Your task to perform on an android device: Open Youtube and go to "Your channel" Image 0: 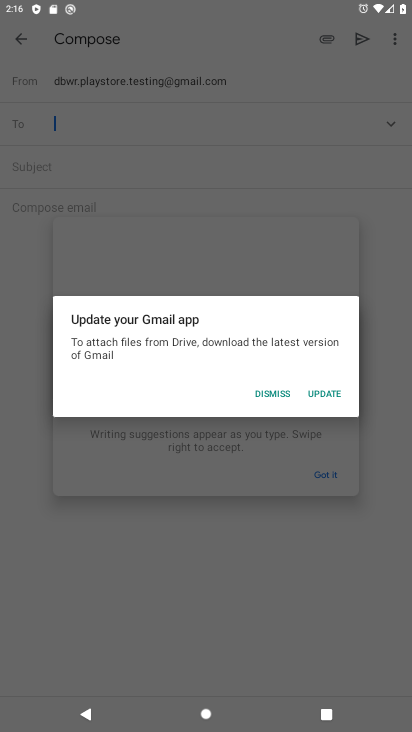
Step 0: press home button
Your task to perform on an android device: Open Youtube and go to "Your channel" Image 1: 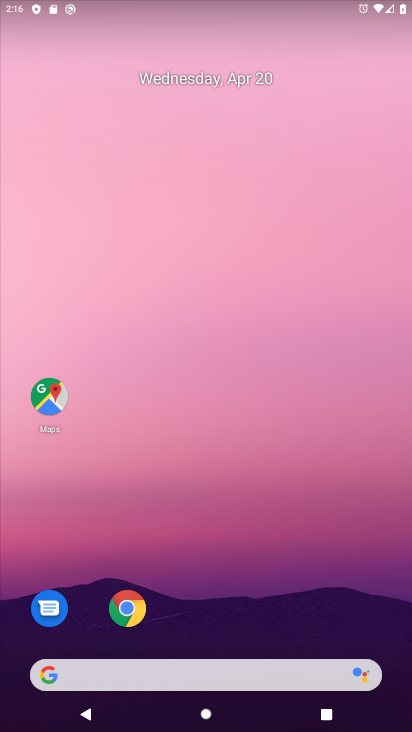
Step 1: drag from (271, 623) to (343, 178)
Your task to perform on an android device: Open Youtube and go to "Your channel" Image 2: 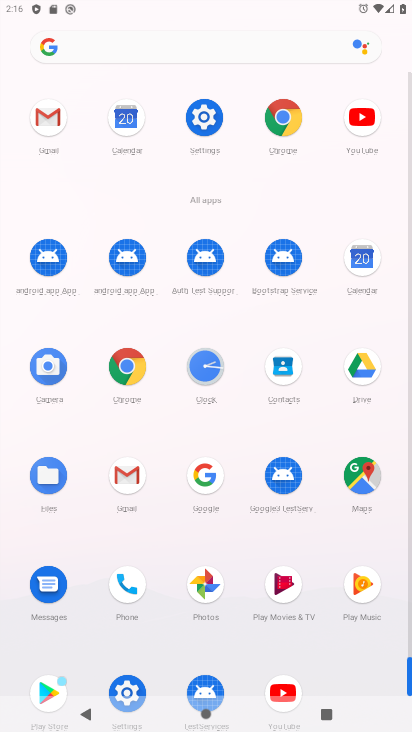
Step 2: drag from (278, 547) to (315, 421)
Your task to perform on an android device: Open Youtube and go to "Your channel" Image 3: 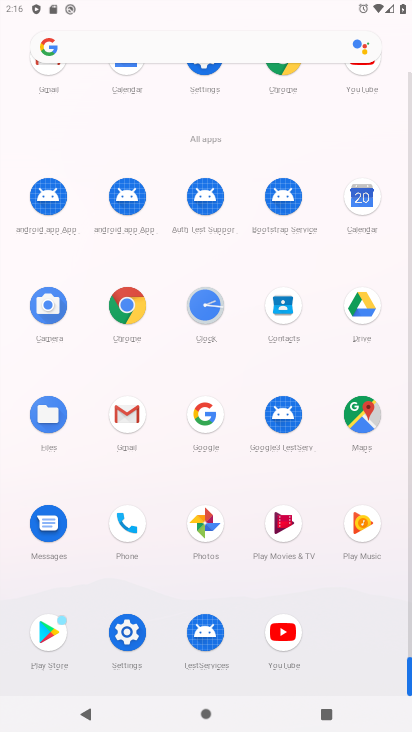
Step 3: click (283, 640)
Your task to perform on an android device: Open Youtube and go to "Your channel" Image 4: 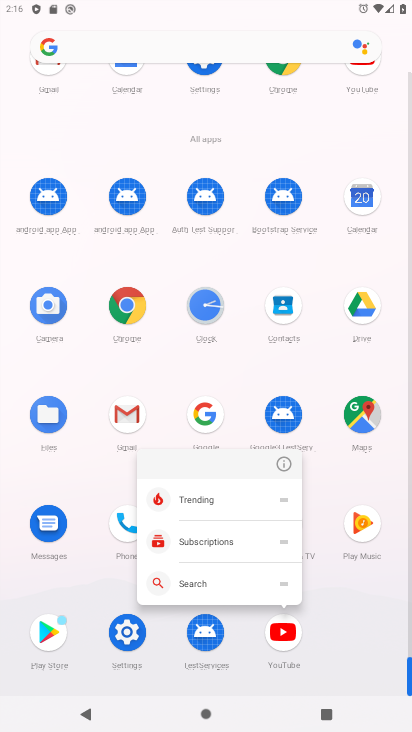
Step 4: click (283, 640)
Your task to perform on an android device: Open Youtube and go to "Your channel" Image 5: 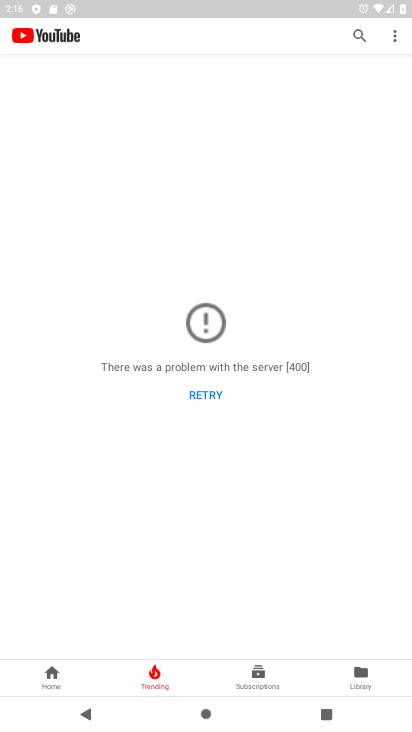
Step 5: click (356, 677)
Your task to perform on an android device: Open Youtube and go to "Your channel" Image 6: 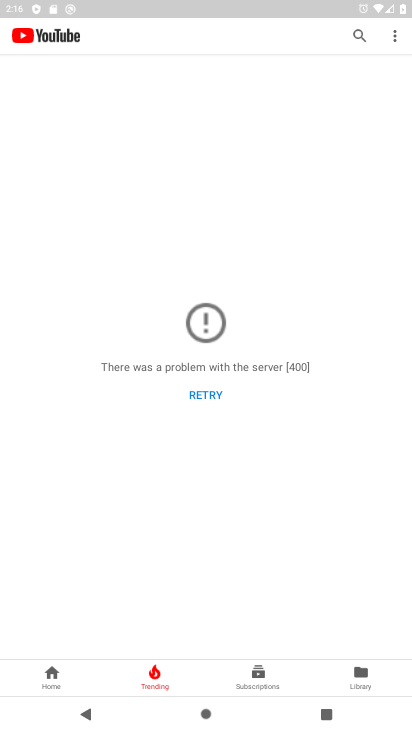
Step 6: click (357, 673)
Your task to perform on an android device: Open Youtube and go to "Your channel" Image 7: 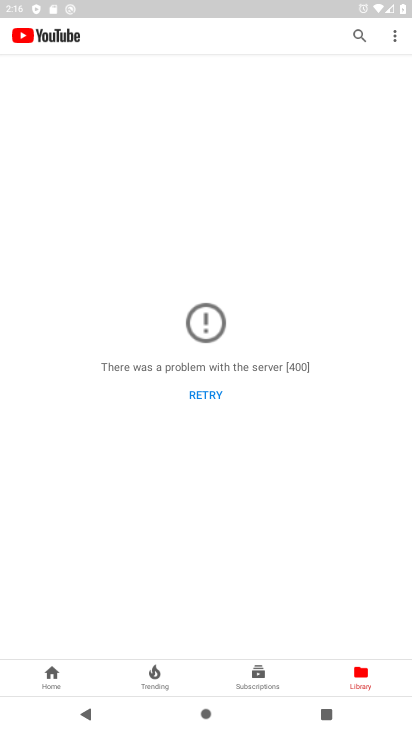
Step 7: click (392, 35)
Your task to perform on an android device: Open Youtube and go to "Your channel" Image 8: 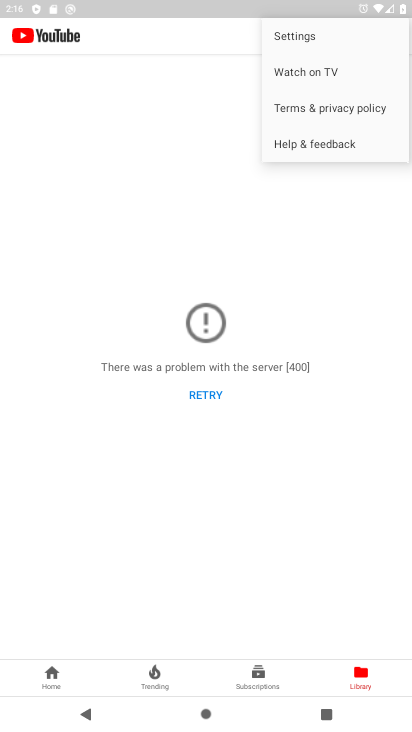
Step 8: click (194, 393)
Your task to perform on an android device: Open Youtube and go to "Your channel" Image 9: 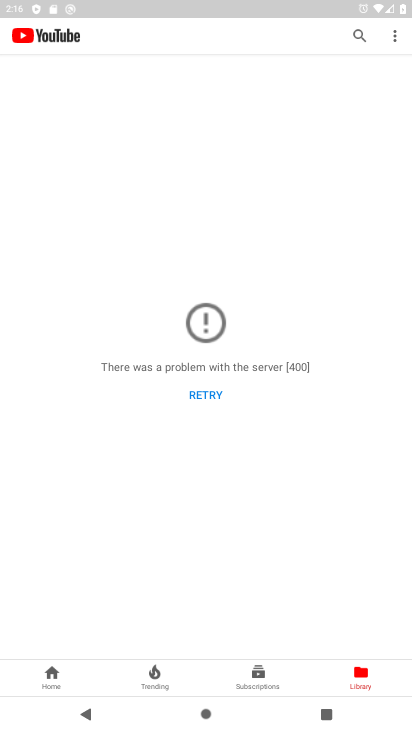
Step 9: click (194, 392)
Your task to perform on an android device: Open Youtube and go to "Your channel" Image 10: 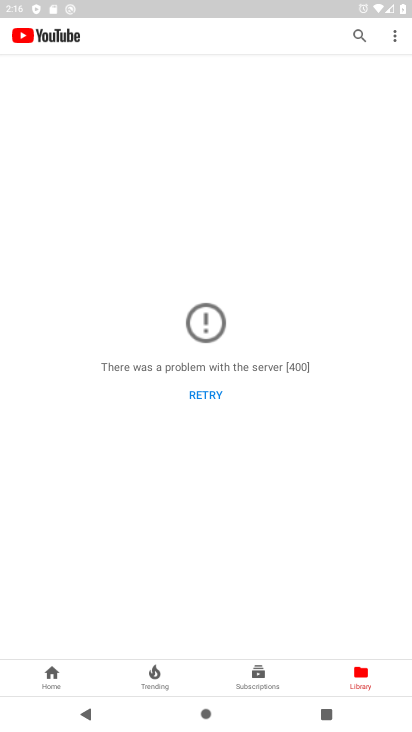
Step 10: click (194, 392)
Your task to perform on an android device: Open Youtube and go to "Your channel" Image 11: 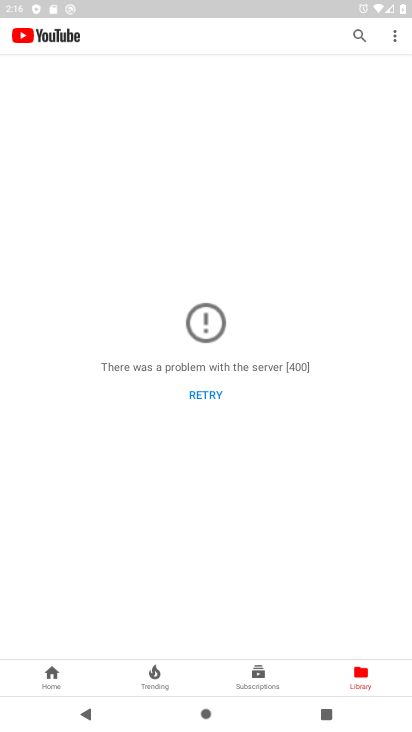
Step 11: task complete